Your task to perform on an android device: check the backup settings in the google photos Image 0: 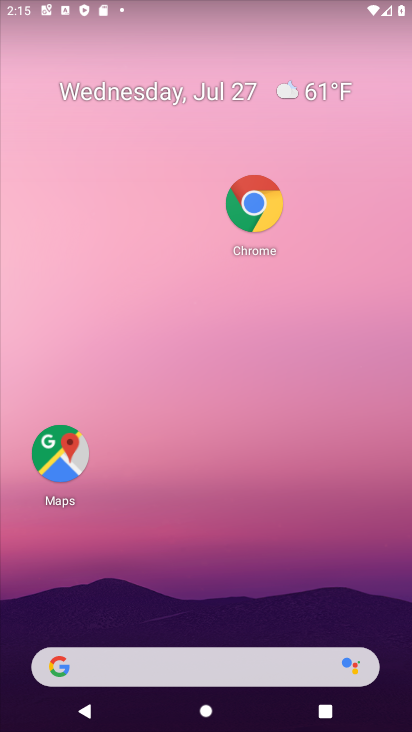
Step 0: drag from (210, 603) to (172, 190)
Your task to perform on an android device: check the backup settings in the google photos Image 1: 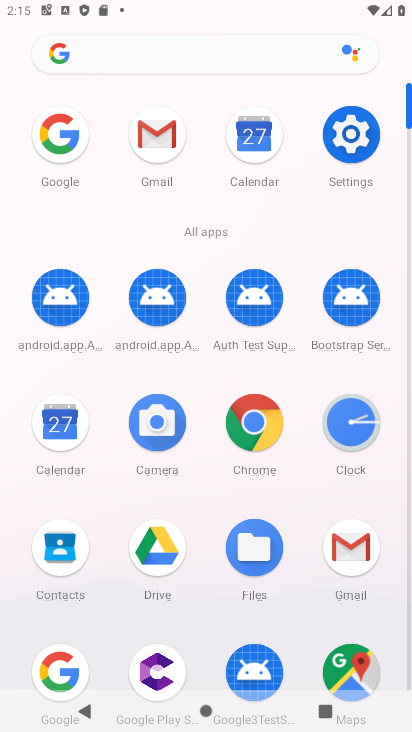
Step 1: drag from (132, 616) to (181, 247)
Your task to perform on an android device: check the backup settings in the google photos Image 2: 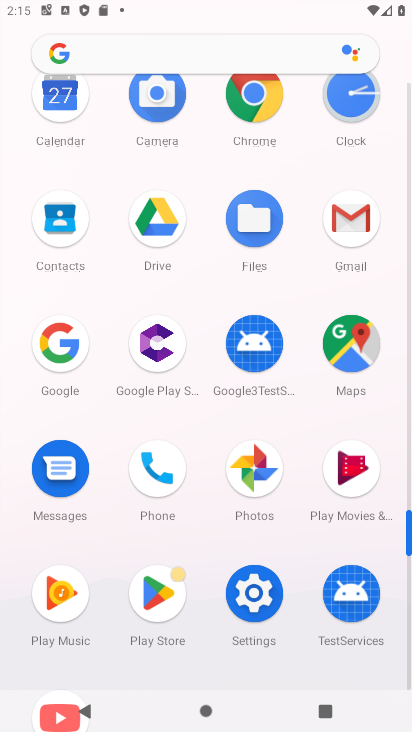
Step 2: click (238, 459)
Your task to perform on an android device: check the backup settings in the google photos Image 3: 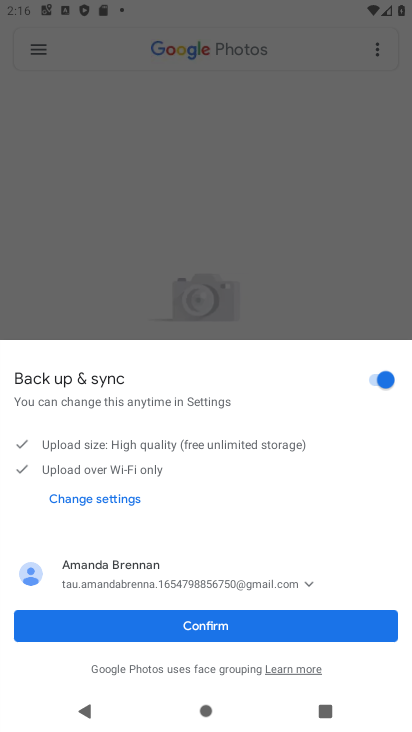
Step 3: click (248, 627)
Your task to perform on an android device: check the backup settings in the google photos Image 4: 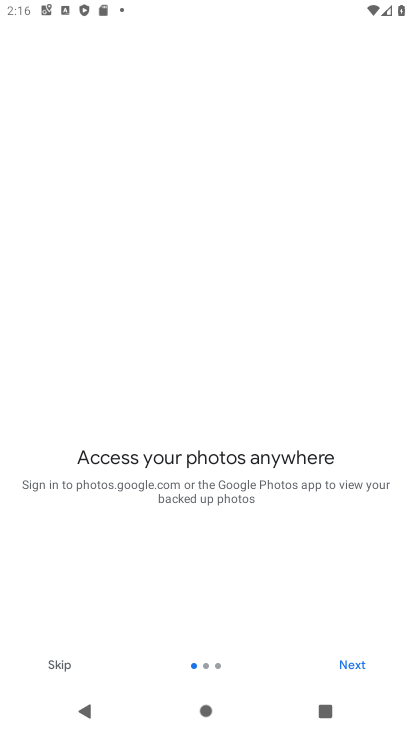
Step 4: click (335, 665)
Your task to perform on an android device: check the backup settings in the google photos Image 5: 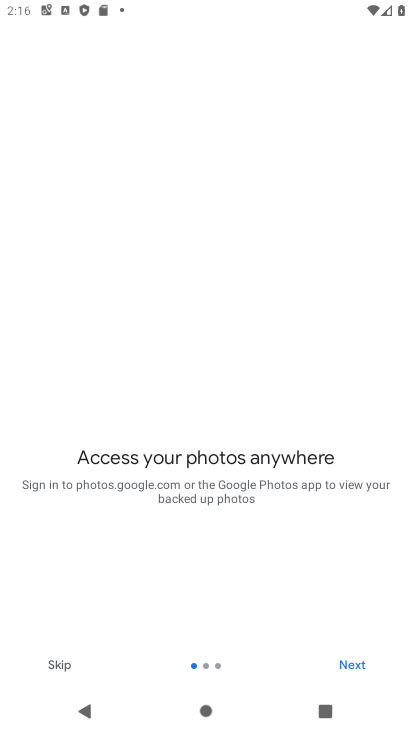
Step 5: click (335, 665)
Your task to perform on an android device: check the backup settings in the google photos Image 6: 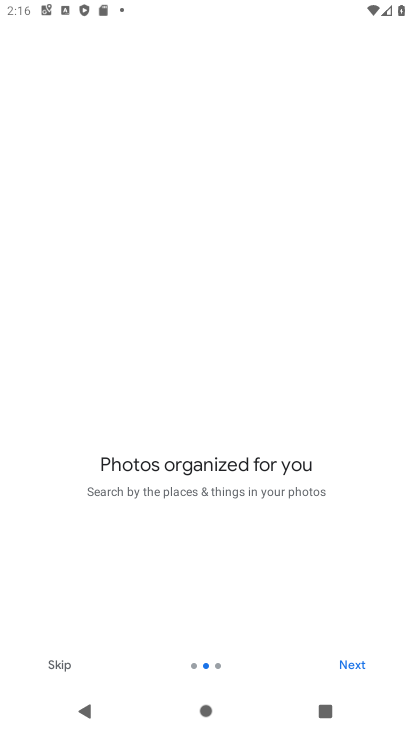
Step 6: click (335, 665)
Your task to perform on an android device: check the backup settings in the google photos Image 7: 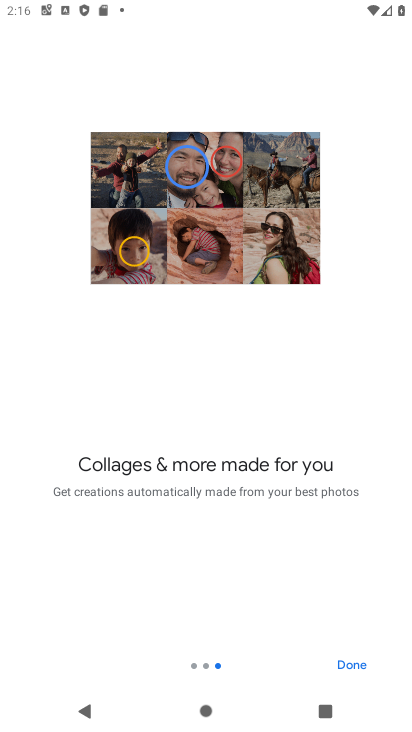
Step 7: click (335, 665)
Your task to perform on an android device: check the backup settings in the google photos Image 8: 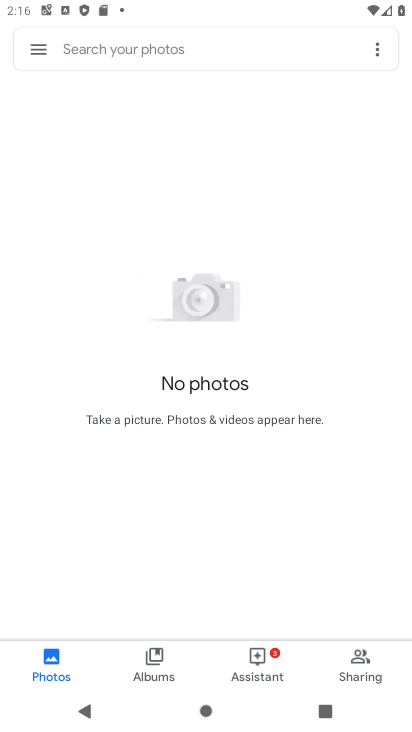
Step 8: click (46, 47)
Your task to perform on an android device: check the backup settings in the google photos Image 9: 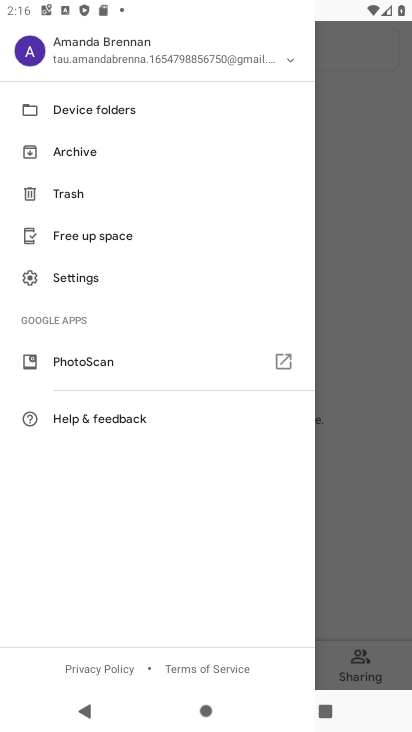
Step 9: click (83, 275)
Your task to perform on an android device: check the backup settings in the google photos Image 10: 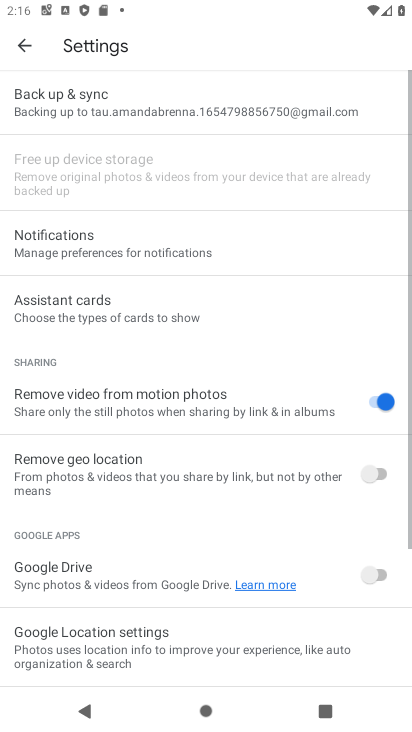
Step 10: click (126, 112)
Your task to perform on an android device: check the backup settings in the google photos Image 11: 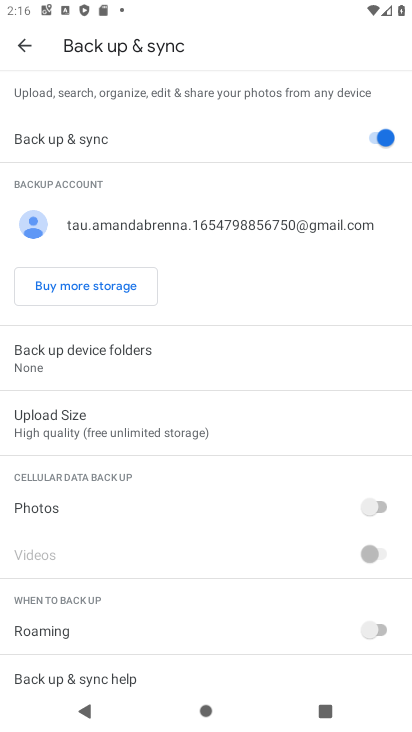
Step 11: task complete